Your task to perform on an android device: What's on my calendar today? Image 0: 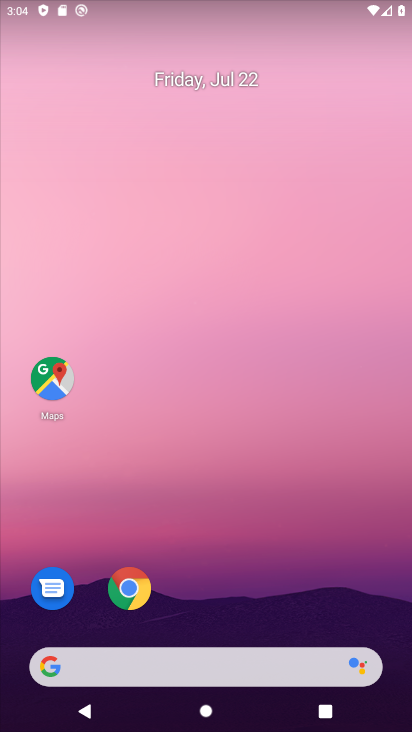
Step 0: click (224, 205)
Your task to perform on an android device: What's on my calendar today? Image 1: 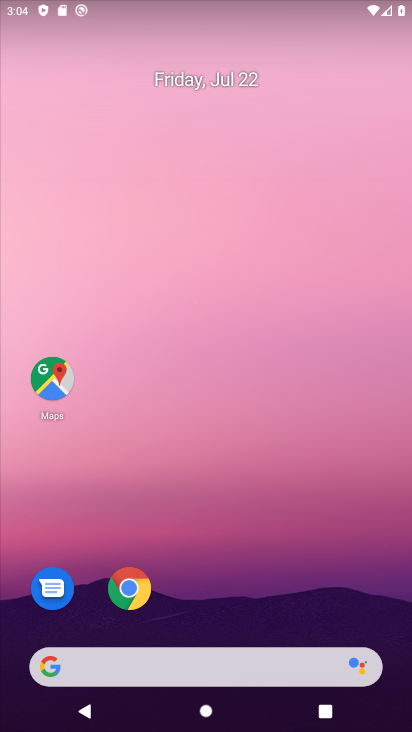
Step 1: drag from (252, 641) to (260, 305)
Your task to perform on an android device: What's on my calendar today? Image 2: 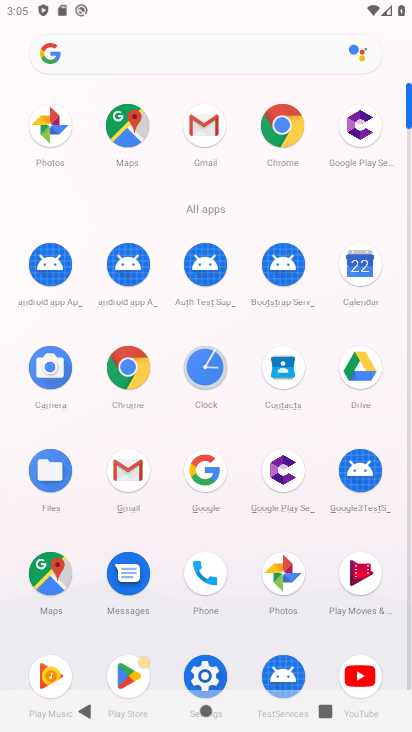
Step 2: click (358, 270)
Your task to perform on an android device: What's on my calendar today? Image 3: 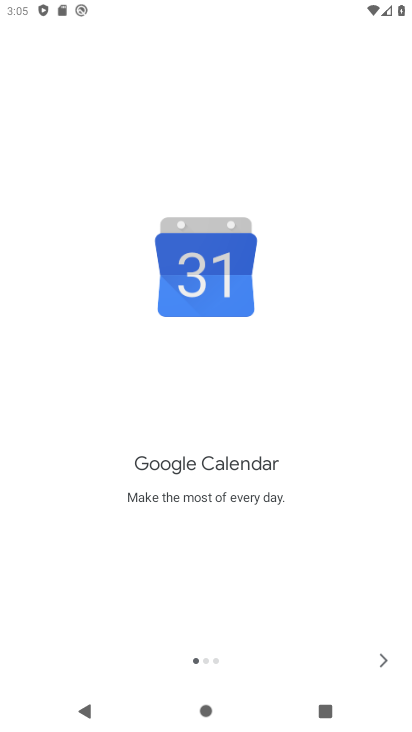
Step 3: click (375, 655)
Your task to perform on an android device: What's on my calendar today? Image 4: 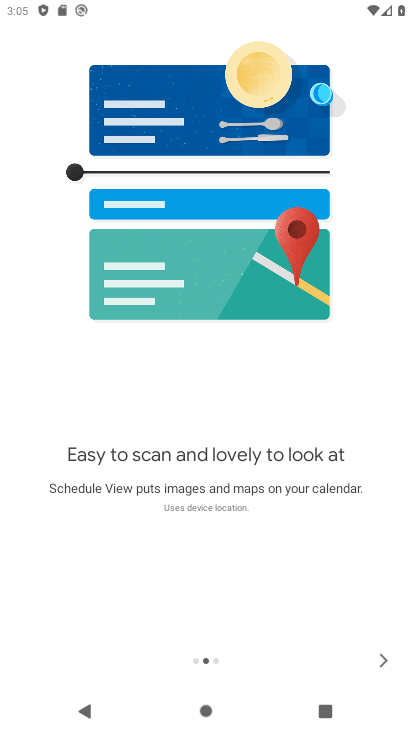
Step 4: click (375, 655)
Your task to perform on an android device: What's on my calendar today? Image 5: 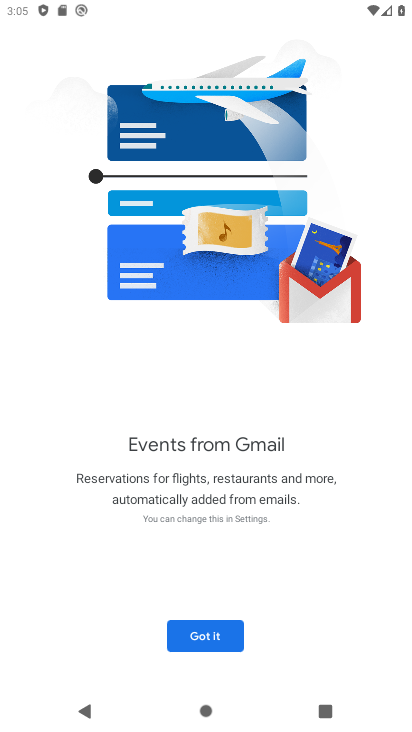
Step 5: click (221, 630)
Your task to perform on an android device: What's on my calendar today? Image 6: 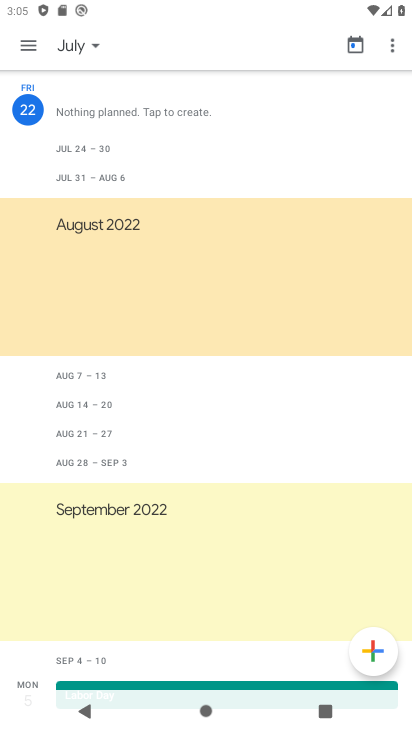
Step 6: click (86, 39)
Your task to perform on an android device: What's on my calendar today? Image 7: 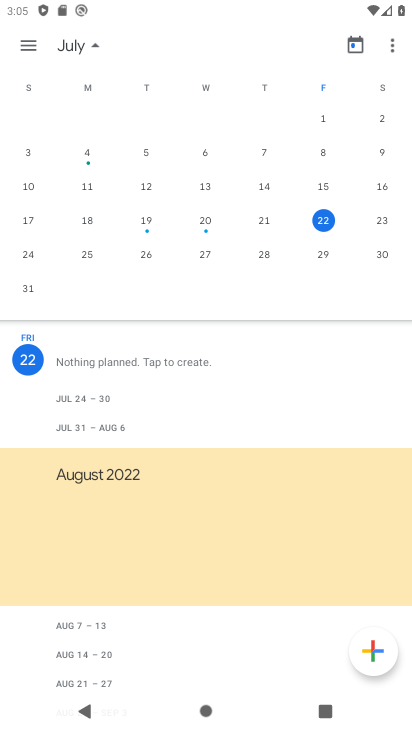
Step 7: click (383, 224)
Your task to perform on an android device: What's on my calendar today? Image 8: 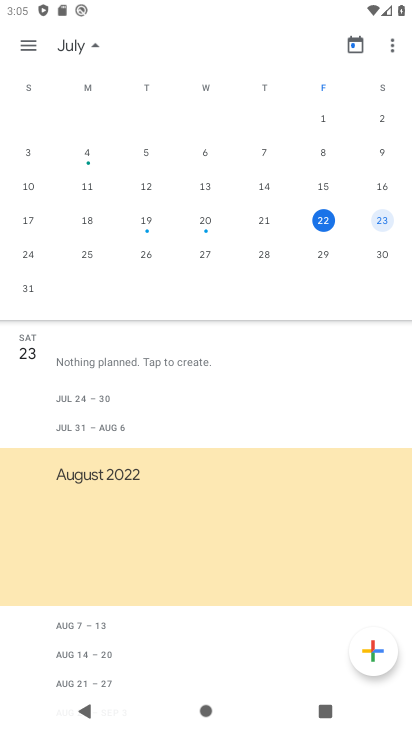
Step 8: click (326, 219)
Your task to perform on an android device: What's on my calendar today? Image 9: 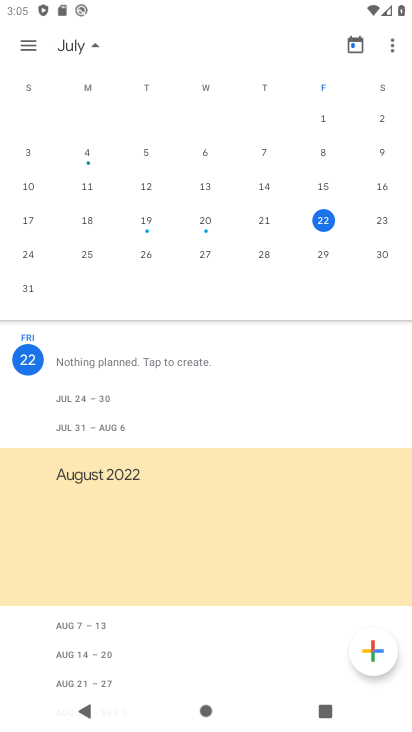
Step 9: task complete